Your task to perform on an android device: Go to Wikipedia Image 0: 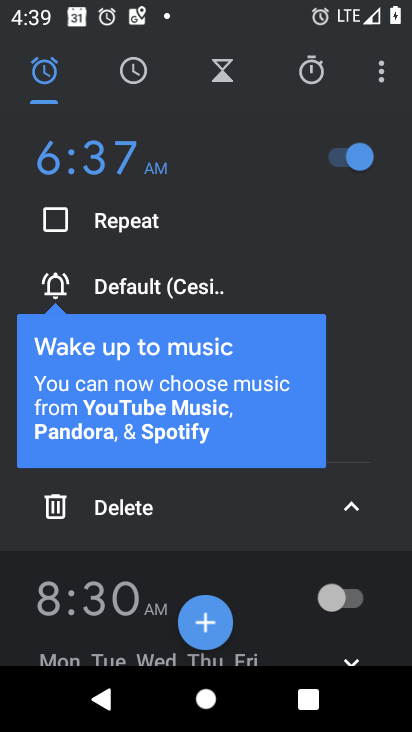
Step 0: press back button
Your task to perform on an android device: Go to Wikipedia Image 1: 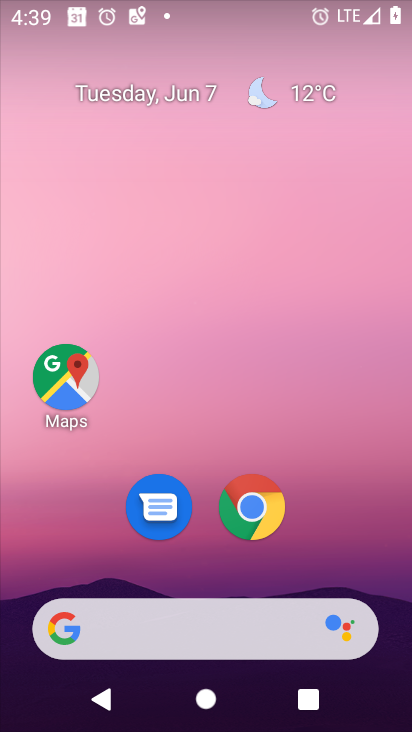
Step 1: drag from (359, 531) to (222, 10)
Your task to perform on an android device: Go to Wikipedia Image 2: 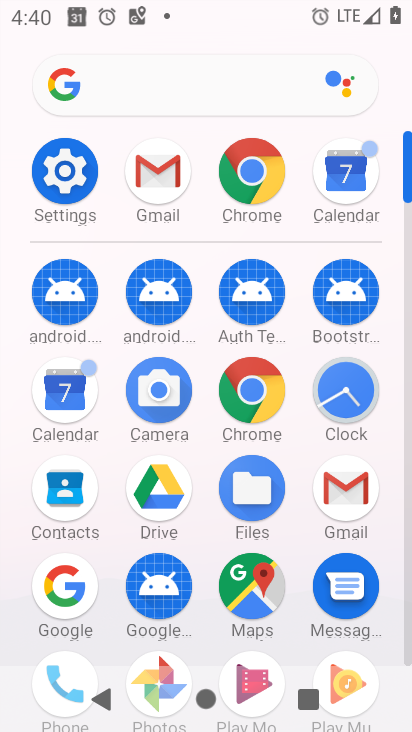
Step 2: click (249, 165)
Your task to perform on an android device: Go to Wikipedia Image 3: 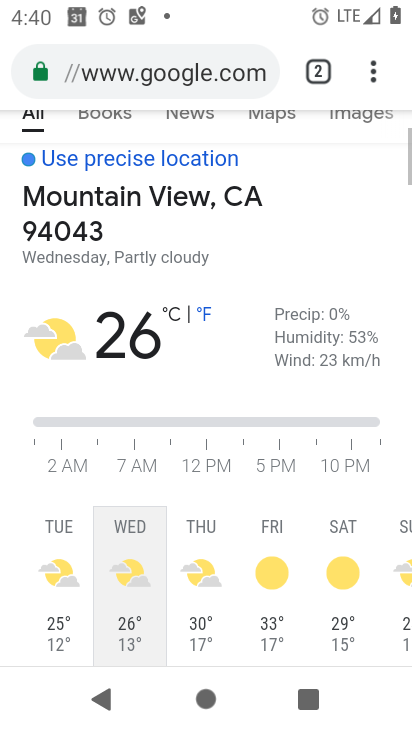
Step 3: click (210, 60)
Your task to perform on an android device: Go to Wikipedia Image 4: 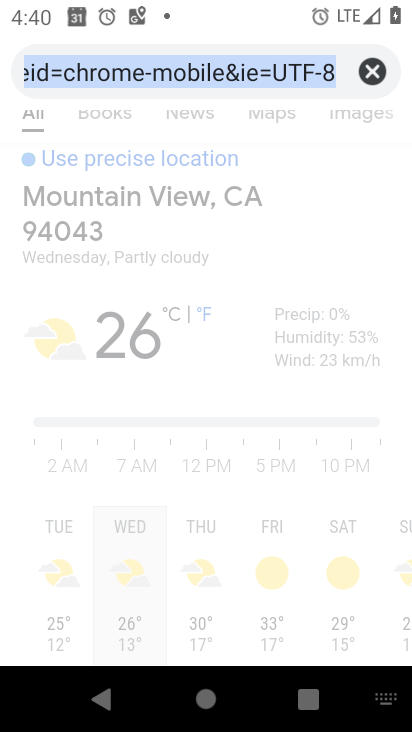
Step 4: click (366, 57)
Your task to perform on an android device: Go to Wikipedia Image 5: 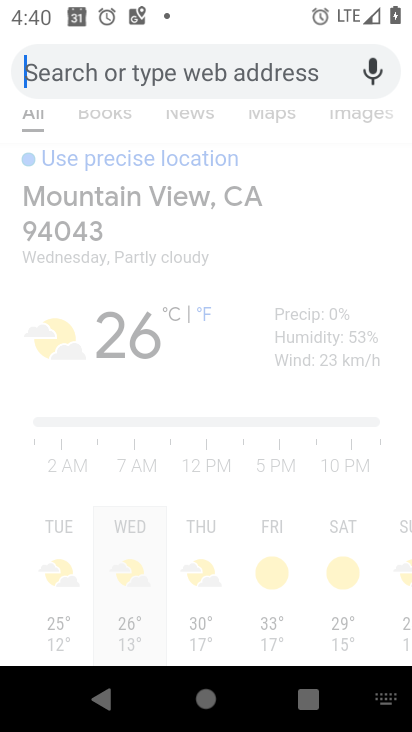
Step 5: type " Wikipedia"
Your task to perform on an android device: Go to Wikipedia Image 6: 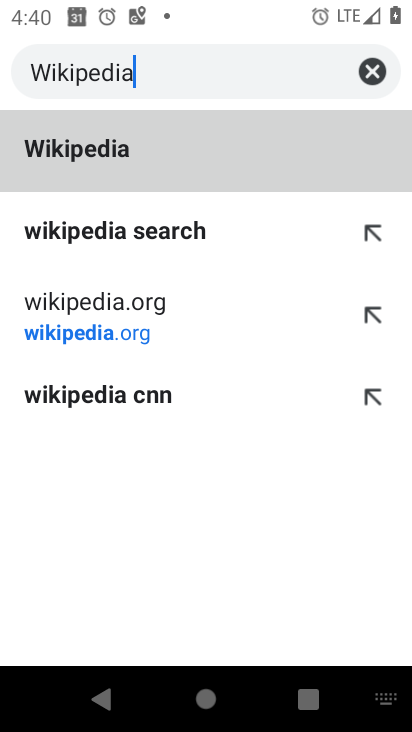
Step 6: type ""
Your task to perform on an android device: Go to Wikipedia Image 7: 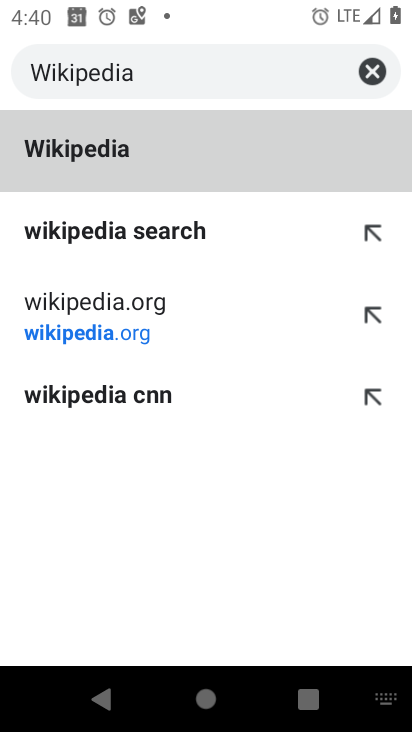
Step 7: click (123, 321)
Your task to perform on an android device: Go to Wikipedia Image 8: 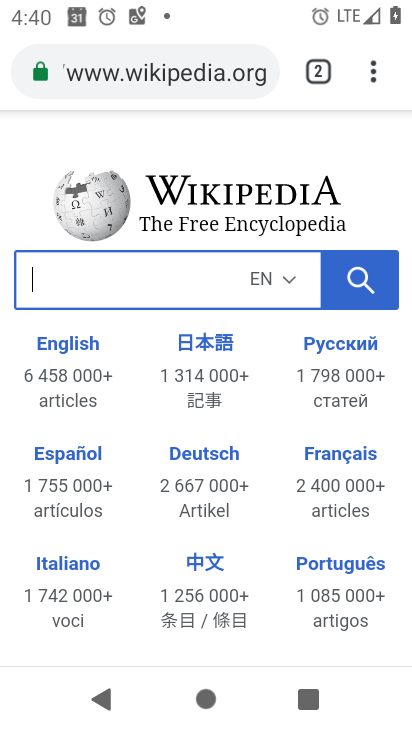
Step 8: task complete